Your task to perform on an android device: open chrome privacy settings Image 0: 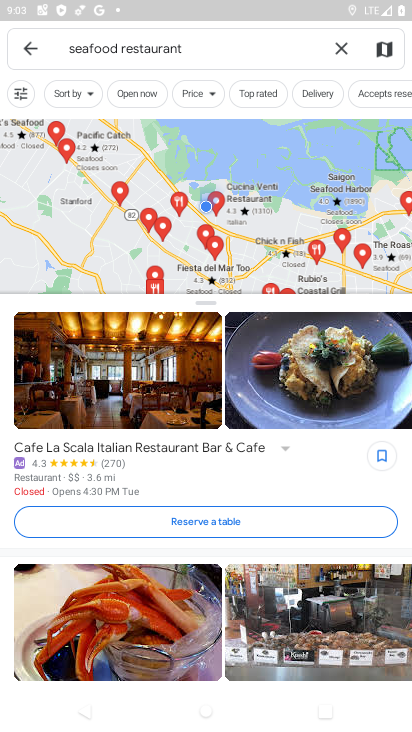
Step 0: press home button
Your task to perform on an android device: open chrome privacy settings Image 1: 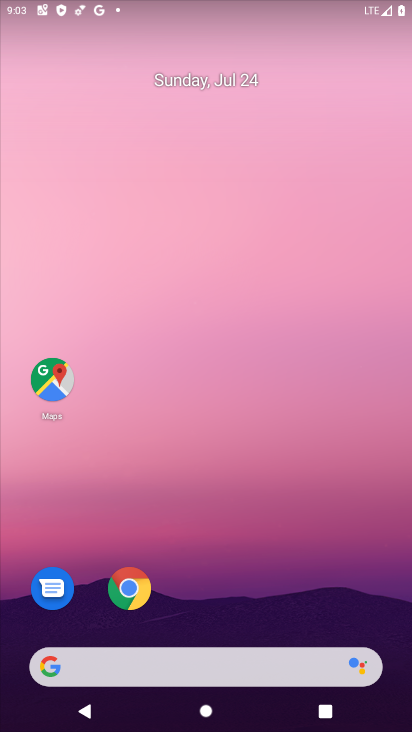
Step 1: click (152, 591)
Your task to perform on an android device: open chrome privacy settings Image 2: 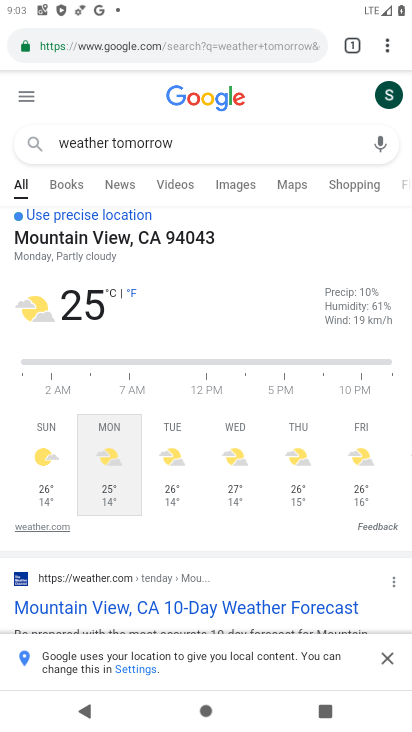
Step 2: drag from (388, 42) to (222, 514)
Your task to perform on an android device: open chrome privacy settings Image 3: 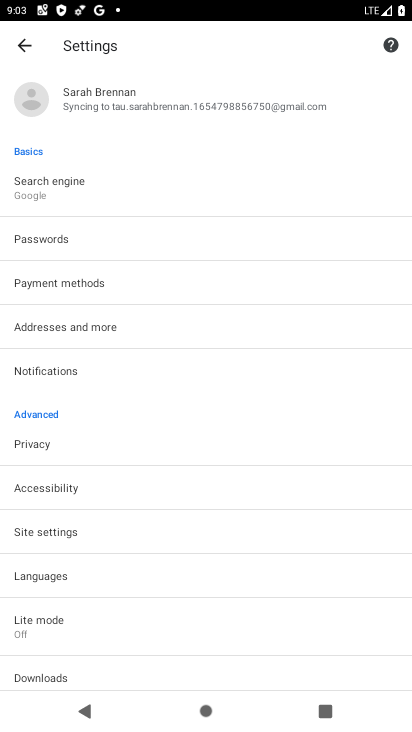
Step 3: click (48, 450)
Your task to perform on an android device: open chrome privacy settings Image 4: 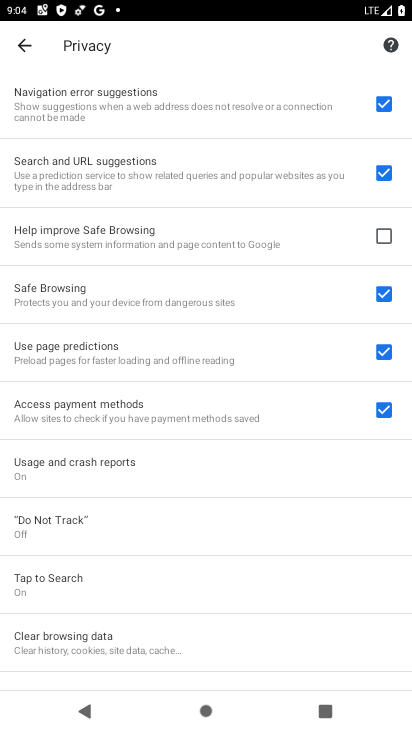
Step 4: task complete